Your task to perform on an android device: delete browsing data in the chrome app Image 0: 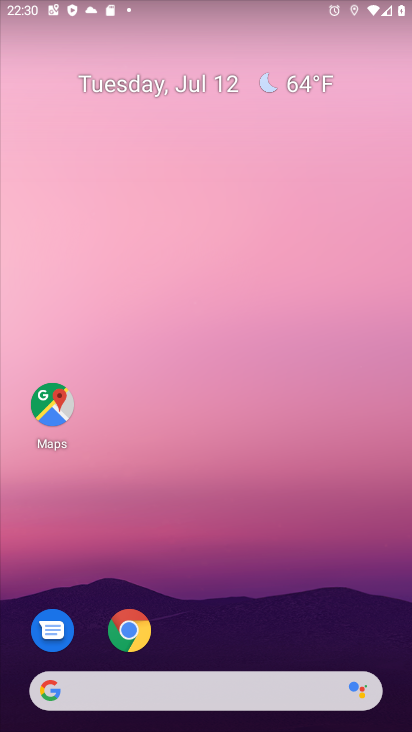
Step 0: drag from (214, 661) to (227, 7)
Your task to perform on an android device: delete browsing data in the chrome app Image 1: 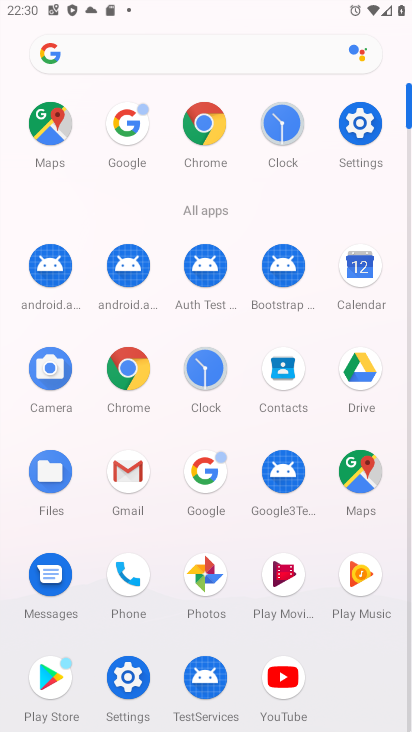
Step 1: click (130, 366)
Your task to perform on an android device: delete browsing data in the chrome app Image 2: 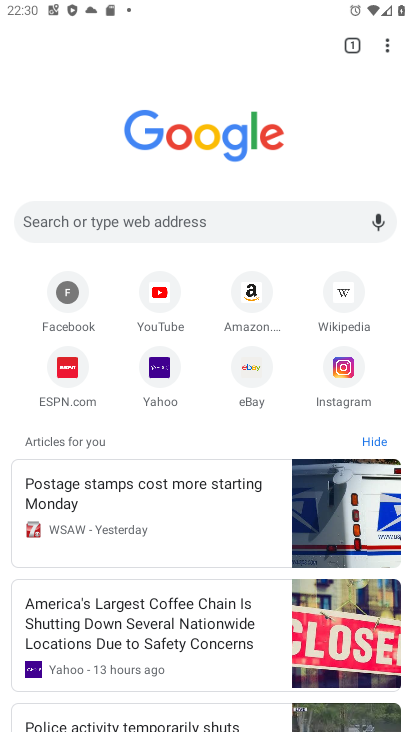
Step 2: click (386, 43)
Your task to perform on an android device: delete browsing data in the chrome app Image 3: 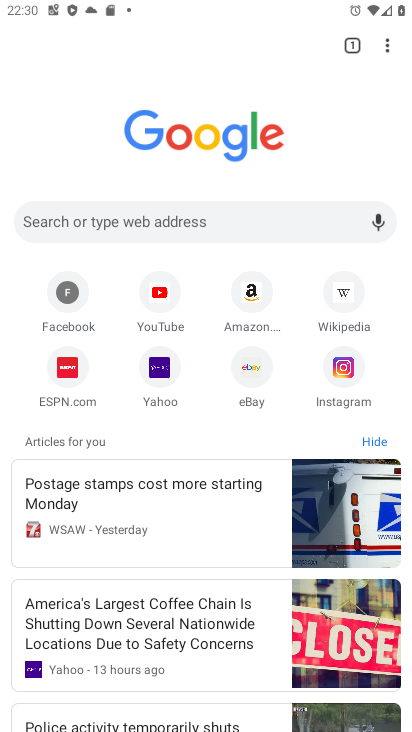
Step 3: task complete